Your task to perform on an android device: manage bookmarks in the chrome app Image 0: 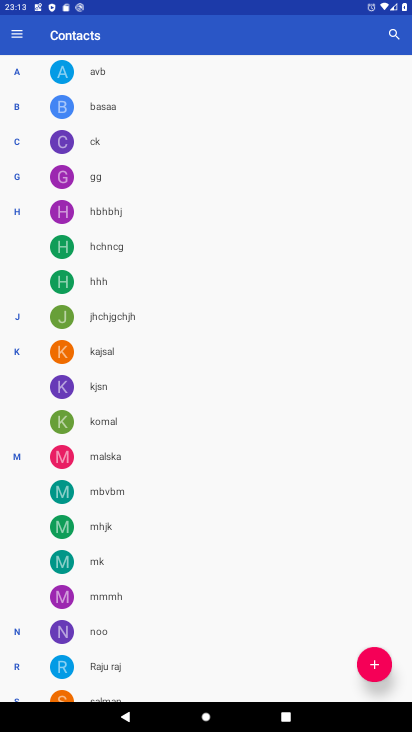
Step 0: press home button
Your task to perform on an android device: manage bookmarks in the chrome app Image 1: 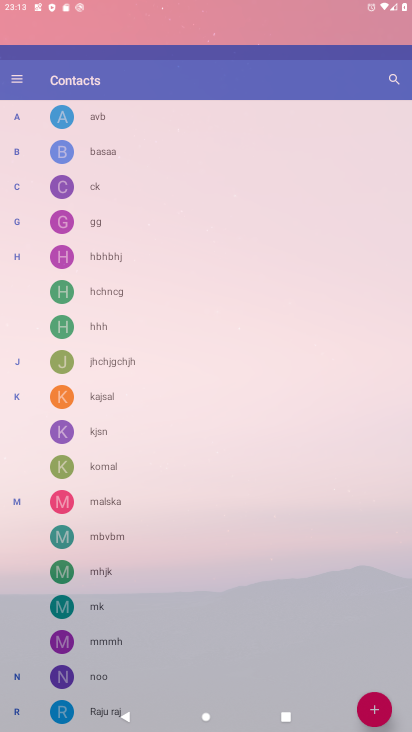
Step 1: drag from (191, 646) to (236, 76)
Your task to perform on an android device: manage bookmarks in the chrome app Image 2: 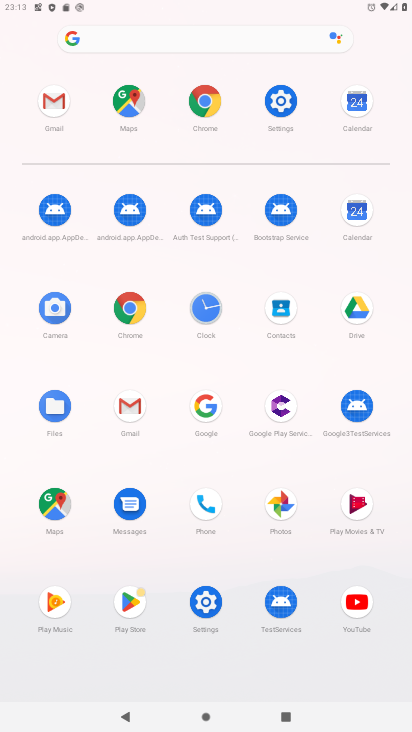
Step 2: click (127, 311)
Your task to perform on an android device: manage bookmarks in the chrome app Image 3: 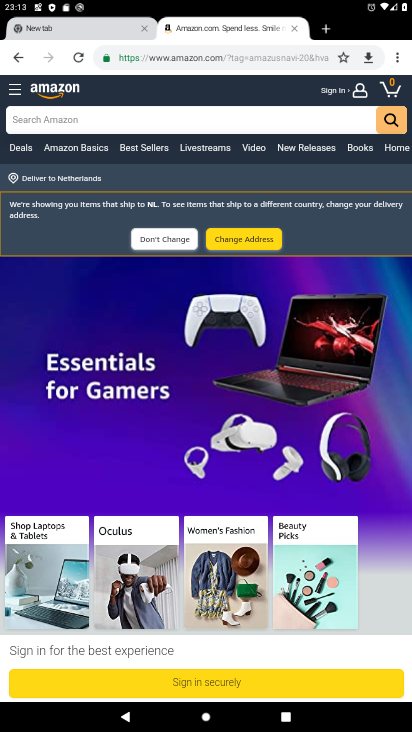
Step 3: task complete